Your task to perform on an android device: What's the weather today? Image 0: 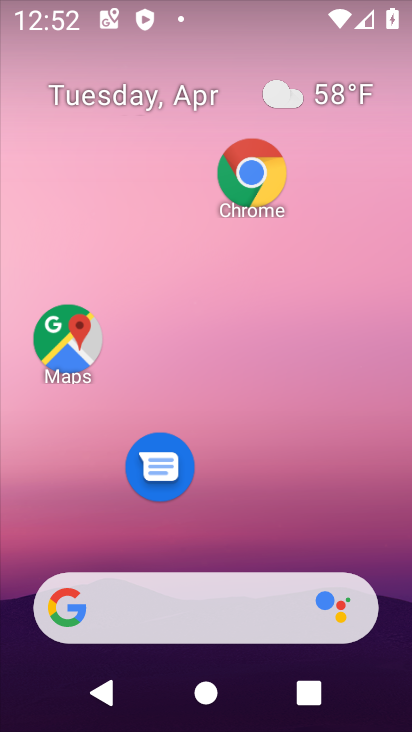
Step 0: drag from (247, 530) to (218, 51)
Your task to perform on an android device: What's the weather today? Image 1: 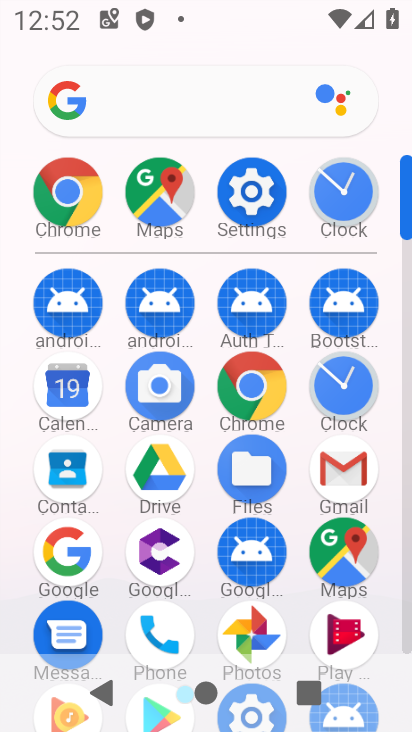
Step 1: click (251, 396)
Your task to perform on an android device: What's the weather today? Image 2: 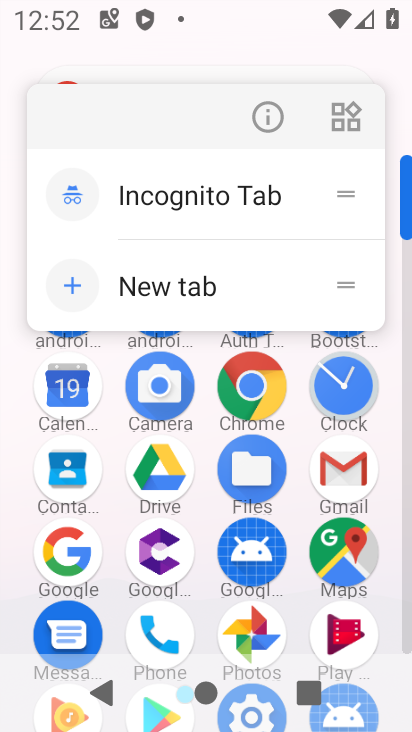
Step 2: click (261, 389)
Your task to perform on an android device: What's the weather today? Image 3: 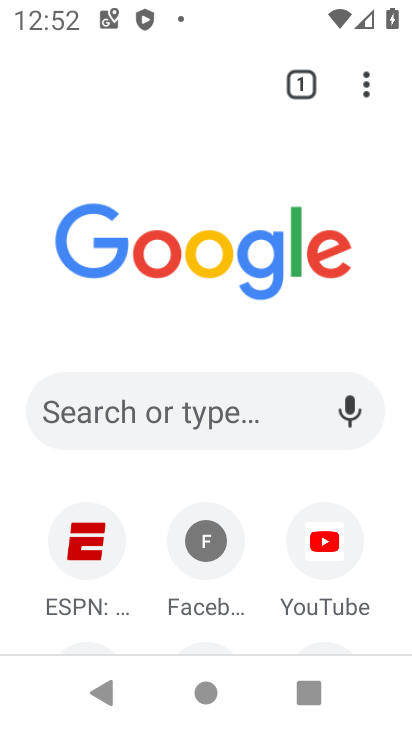
Step 3: click (217, 414)
Your task to perform on an android device: What's the weather today? Image 4: 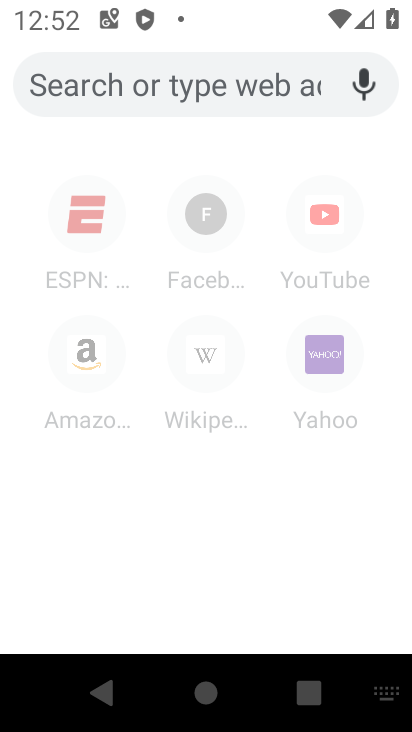
Step 4: type "whats the weather today"
Your task to perform on an android device: What's the weather today? Image 5: 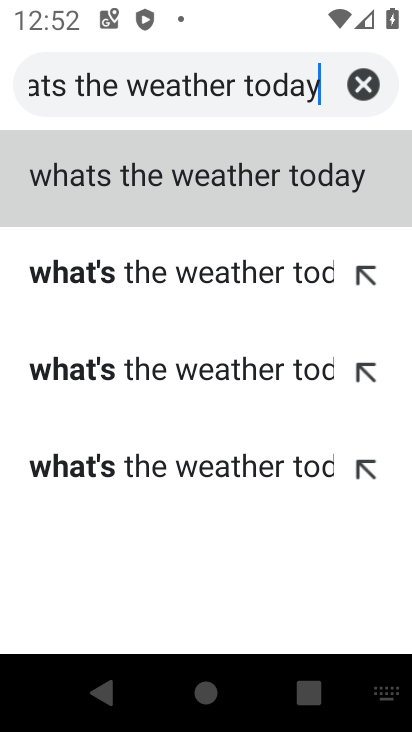
Step 5: click (327, 199)
Your task to perform on an android device: What's the weather today? Image 6: 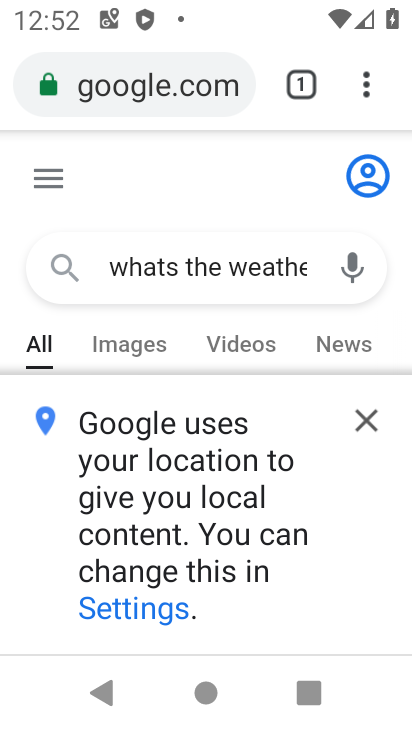
Step 6: click (363, 411)
Your task to perform on an android device: What's the weather today? Image 7: 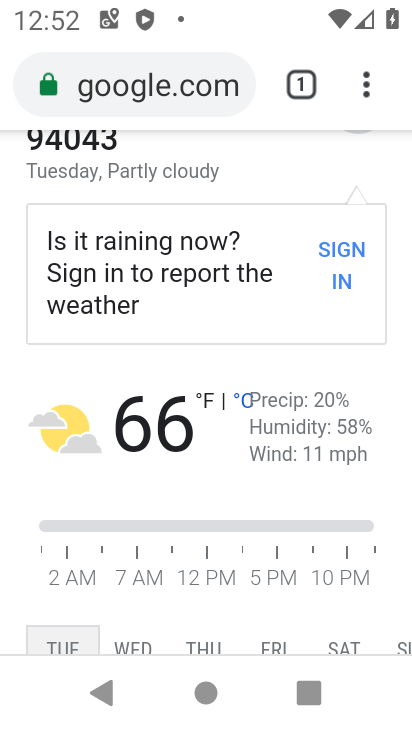
Step 7: task complete